Your task to perform on an android device: change alarm snooze length Image 0: 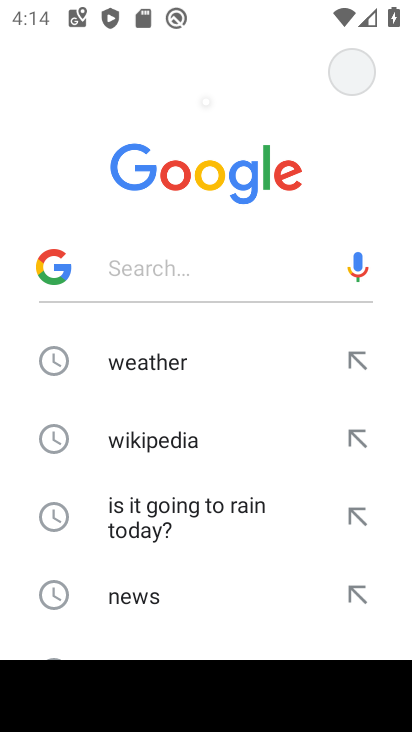
Step 0: press back button
Your task to perform on an android device: change alarm snooze length Image 1: 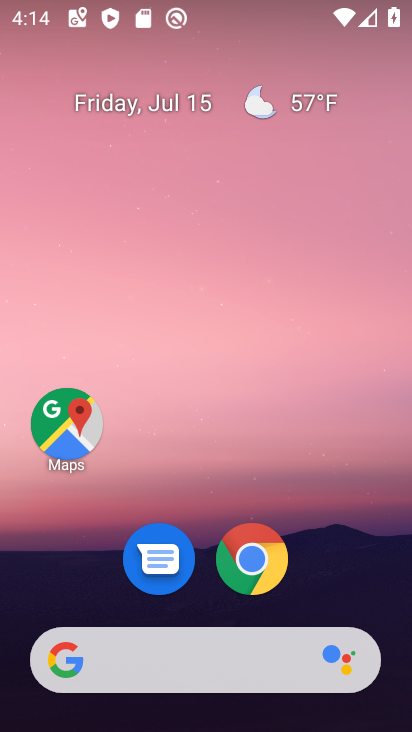
Step 1: drag from (58, 585) to (194, 49)
Your task to perform on an android device: change alarm snooze length Image 2: 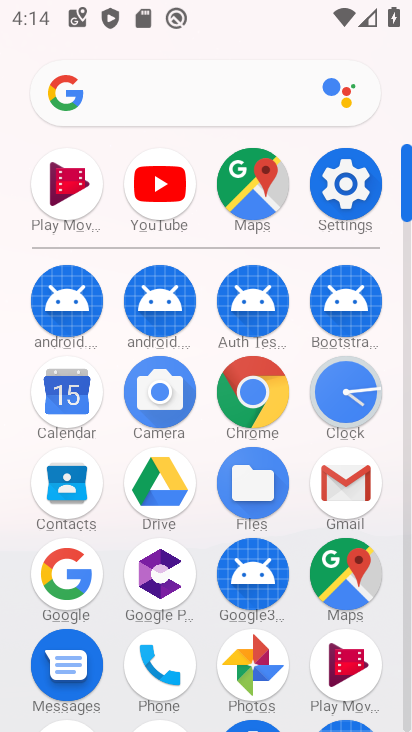
Step 2: click (346, 388)
Your task to perform on an android device: change alarm snooze length Image 3: 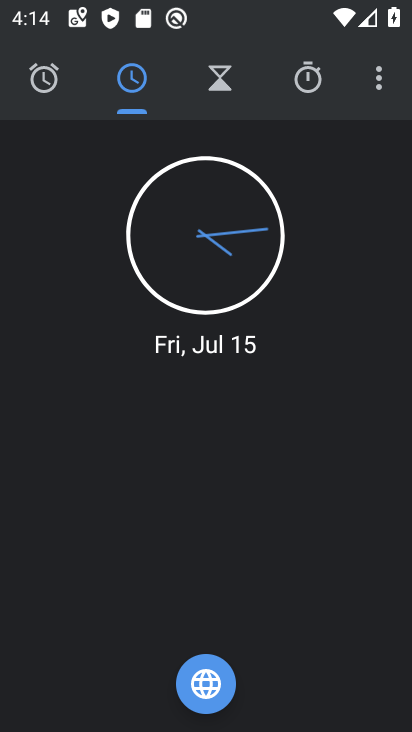
Step 3: click (384, 80)
Your task to perform on an android device: change alarm snooze length Image 4: 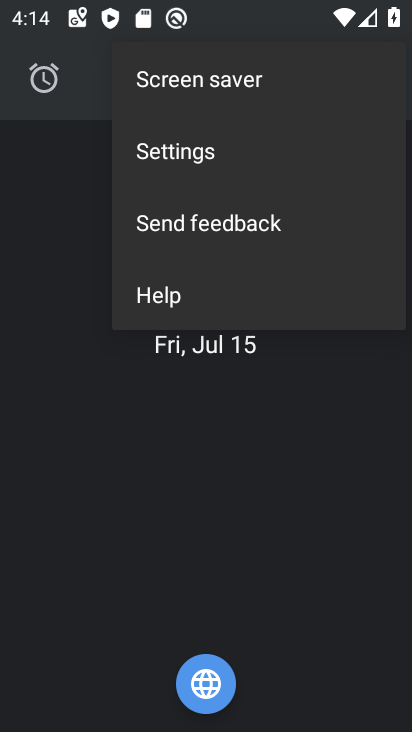
Step 4: click (217, 163)
Your task to perform on an android device: change alarm snooze length Image 5: 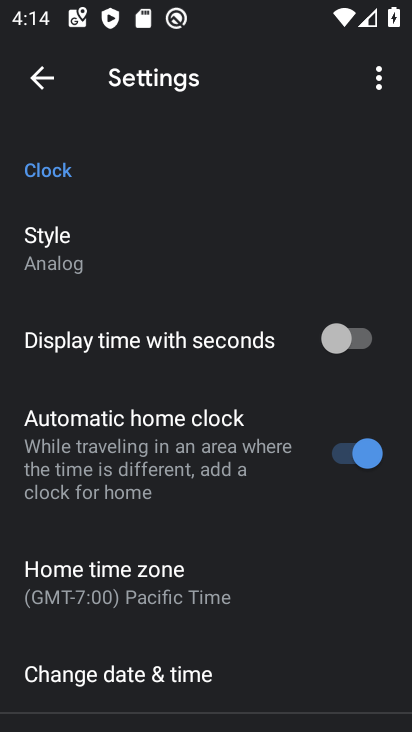
Step 5: drag from (150, 608) to (164, 107)
Your task to perform on an android device: change alarm snooze length Image 6: 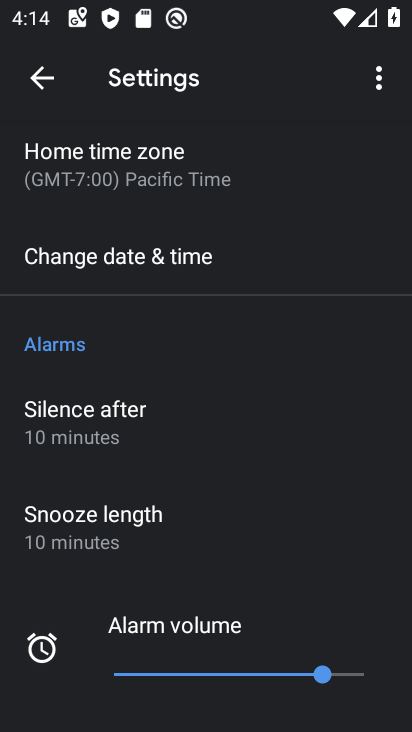
Step 6: click (65, 521)
Your task to perform on an android device: change alarm snooze length Image 7: 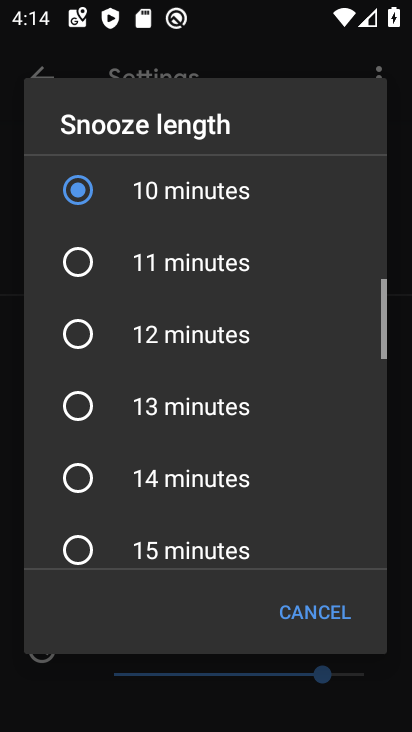
Step 7: click (91, 256)
Your task to perform on an android device: change alarm snooze length Image 8: 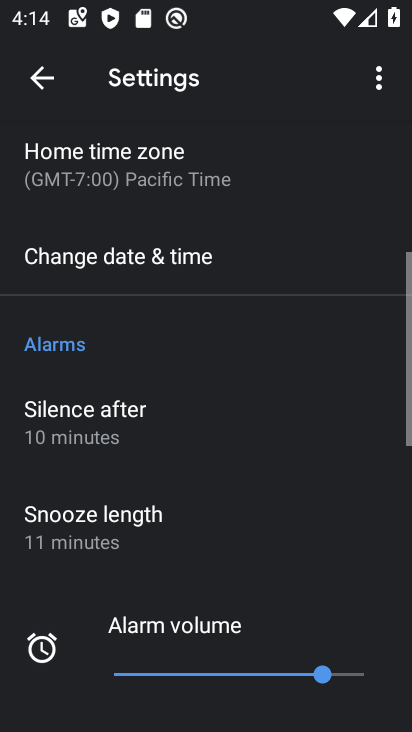
Step 8: task complete